Your task to perform on an android device: open device folders in google photos Image 0: 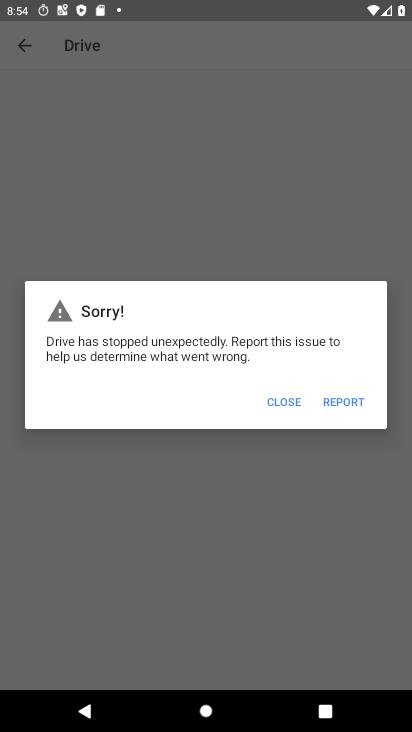
Step 0: press home button
Your task to perform on an android device: open device folders in google photos Image 1: 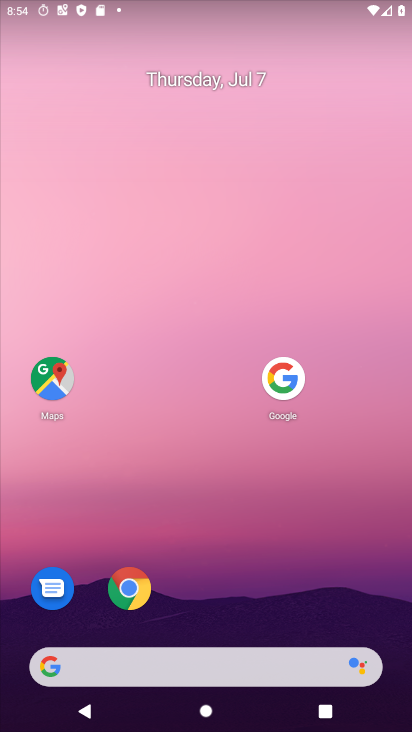
Step 1: drag from (224, 579) to (353, 48)
Your task to perform on an android device: open device folders in google photos Image 2: 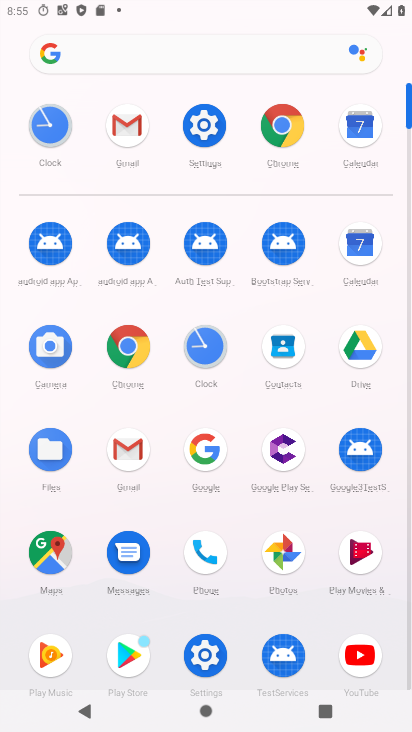
Step 2: click (282, 548)
Your task to perform on an android device: open device folders in google photos Image 3: 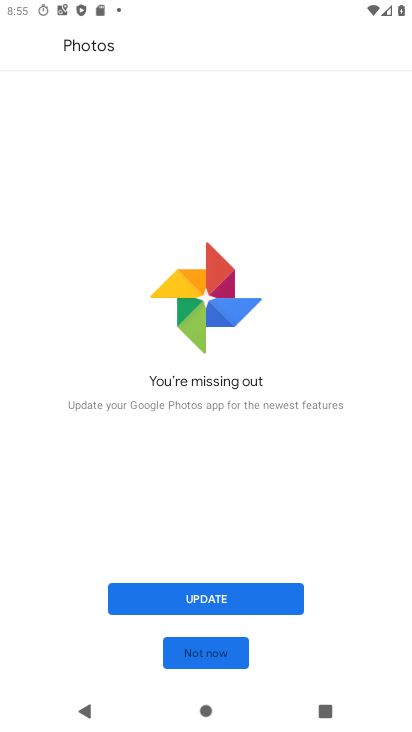
Step 3: click (210, 601)
Your task to perform on an android device: open device folders in google photos Image 4: 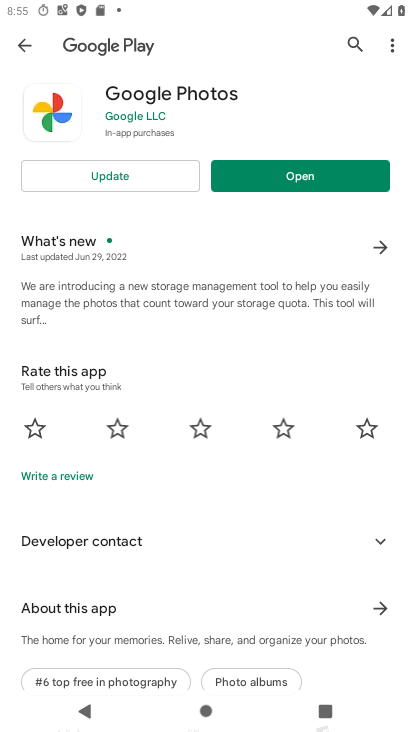
Step 4: click (130, 180)
Your task to perform on an android device: open device folders in google photos Image 5: 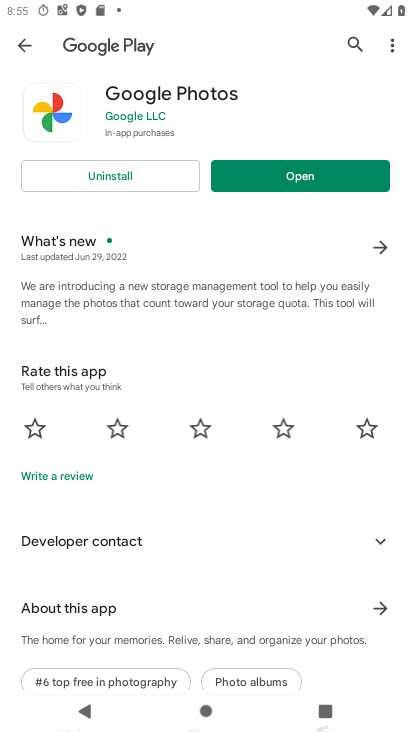
Step 5: click (293, 181)
Your task to perform on an android device: open device folders in google photos Image 6: 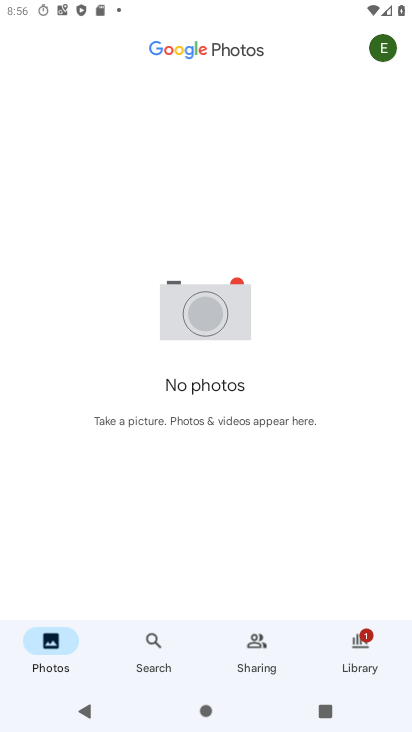
Step 6: click (358, 648)
Your task to perform on an android device: open device folders in google photos Image 7: 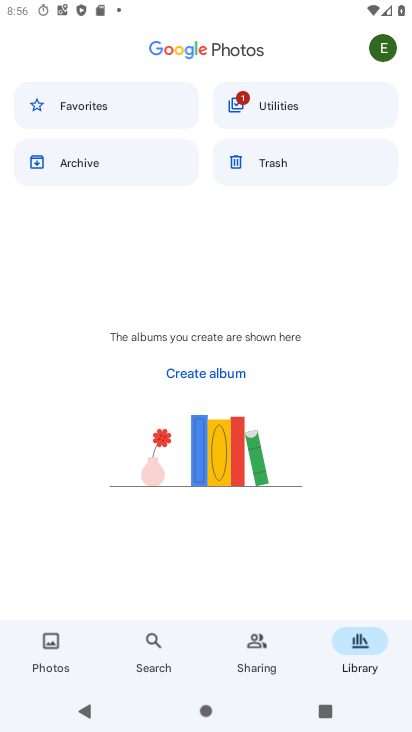
Step 7: task complete